Your task to perform on an android device: change alarm snooze length Image 0: 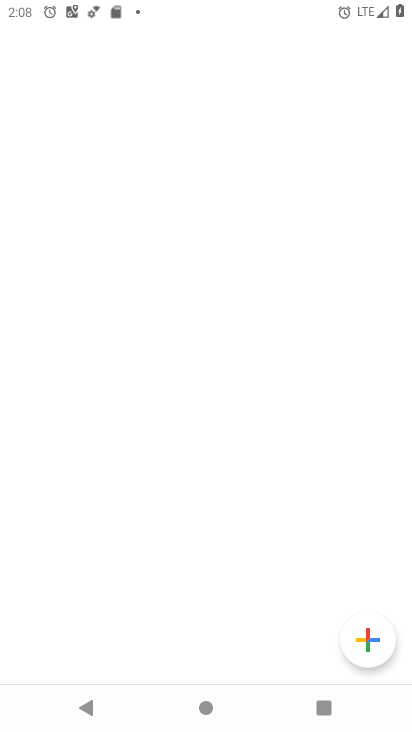
Step 0: click (269, 196)
Your task to perform on an android device: change alarm snooze length Image 1: 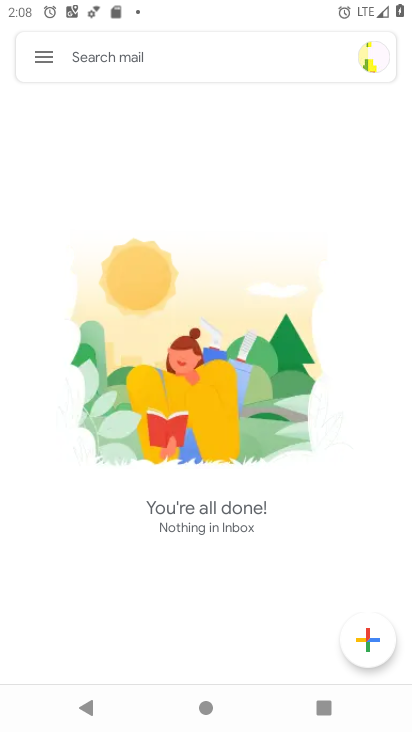
Step 1: press home button
Your task to perform on an android device: change alarm snooze length Image 2: 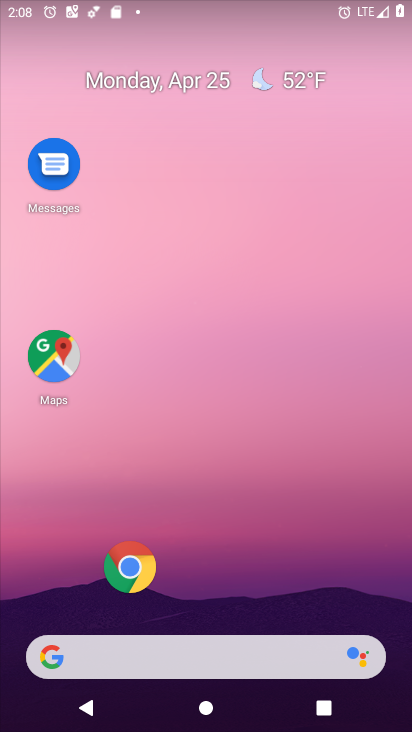
Step 2: drag from (271, 528) to (342, 143)
Your task to perform on an android device: change alarm snooze length Image 3: 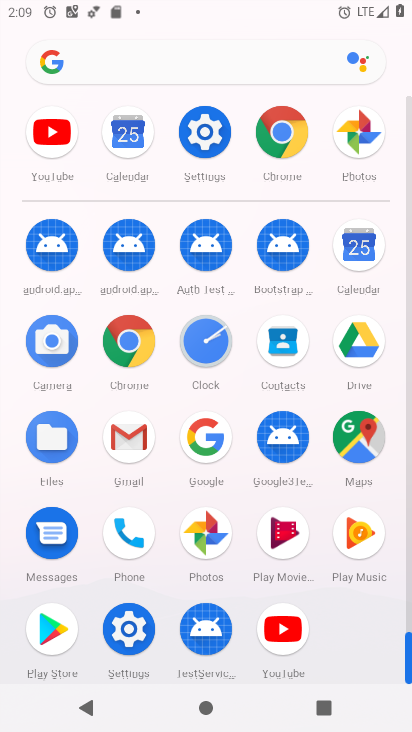
Step 3: drag from (231, 517) to (268, 266)
Your task to perform on an android device: change alarm snooze length Image 4: 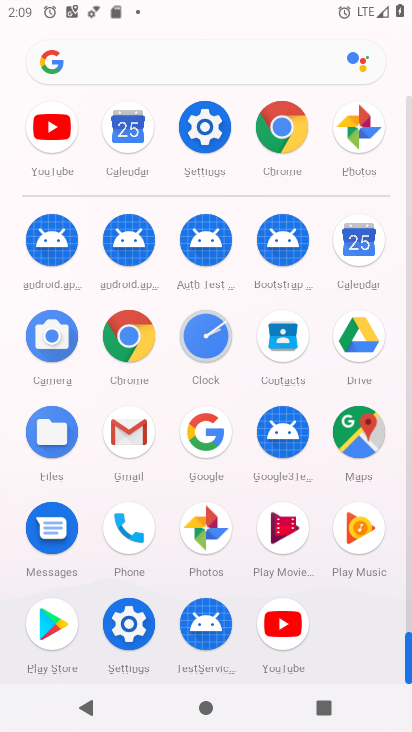
Step 4: click (212, 343)
Your task to perform on an android device: change alarm snooze length Image 5: 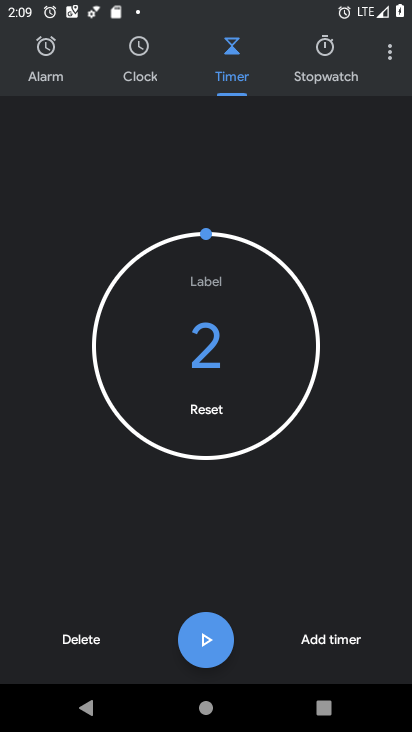
Step 5: click (388, 60)
Your task to perform on an android device: change alarm snooze length Image 6: 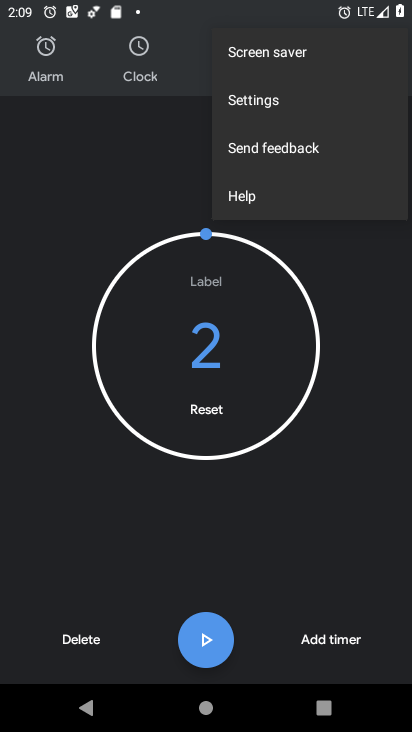
Step 6: click (306, 106)
Your task to perform on an android device: change alarm snooze length Image 7: 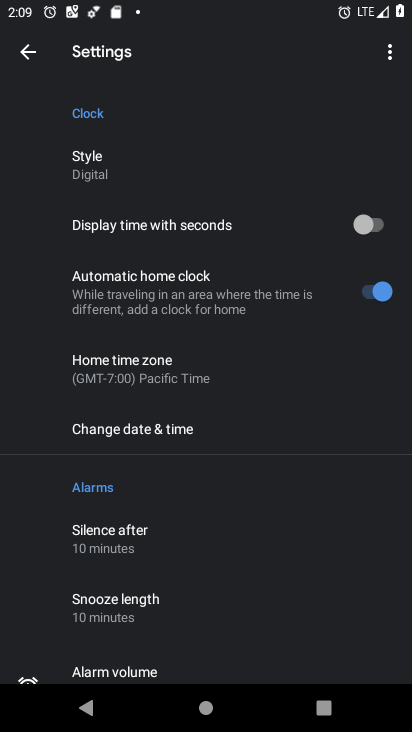
Step 7: drag from (185, 513) to (226, 257)
Your task to perform on an android device: change alarm snooze length Image 8: 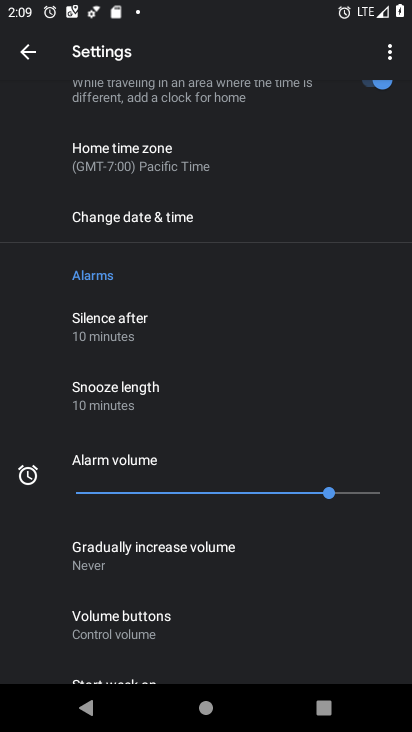
Step 8: drag from (210, 530) to (244, 374)
Your task to perform on an android device: change alarm snooze length Image 9: 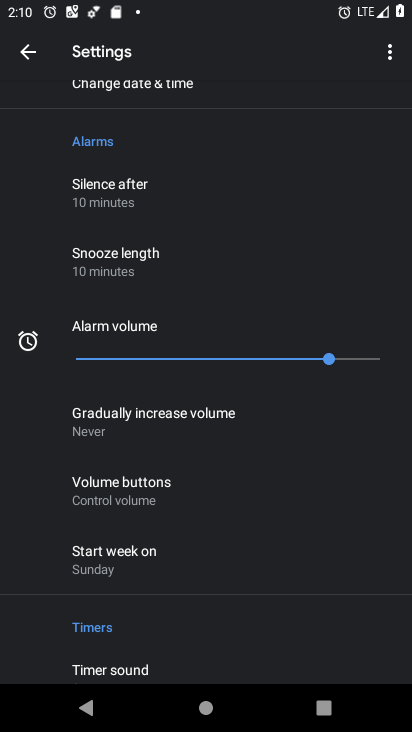
Step 9: click (202, 253)
Your task to perform on an android device: change alarm snooze length Image 10: 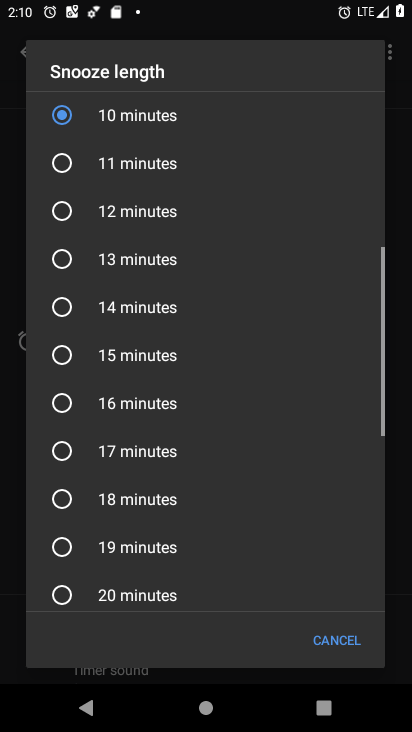
Step 10: click (63, 219)
Your task to perform on an android device: change alarm snooze length Image 11: 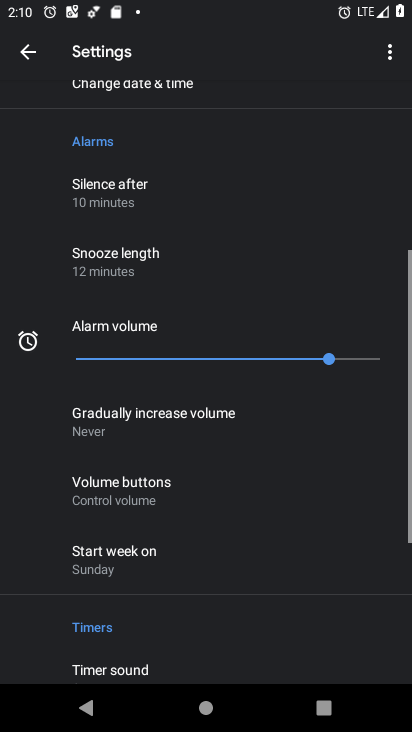
Step 11: task complete